Your task to perform on an android device: Go to Wikipedia Image 0: 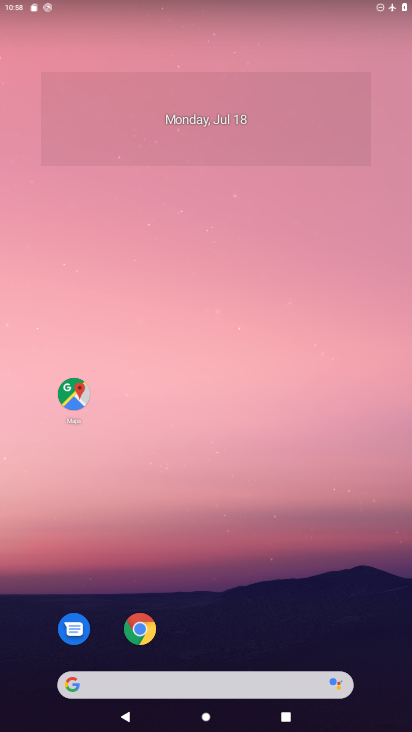
Step 0: drag from (323, 580) to (270, 149)
Your task to perform on an android device: Go to Wikipedia Image 1: 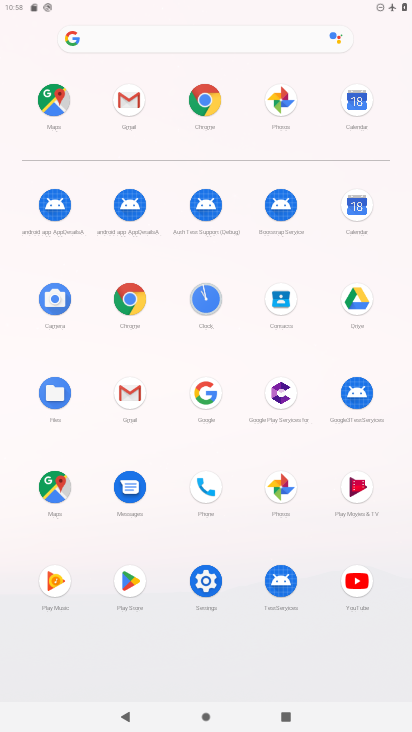
Step 1: click (209, 98)
Your task to perform on an android device: Go to Wikipedia Image 2: 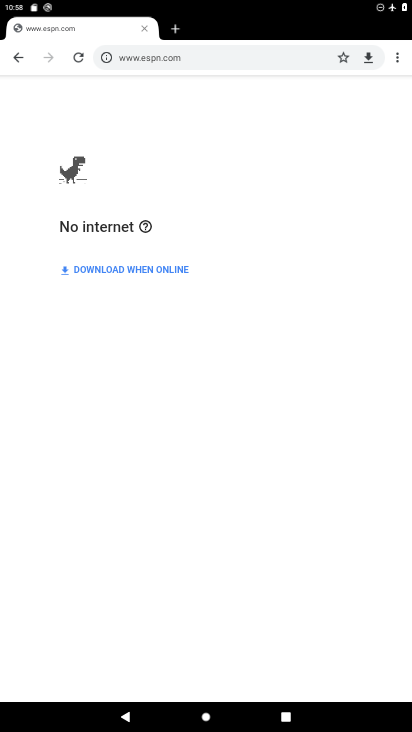
Step 2: click (191, 65)
Your task to perform on an android device: Go to Wikipedia Image 3: 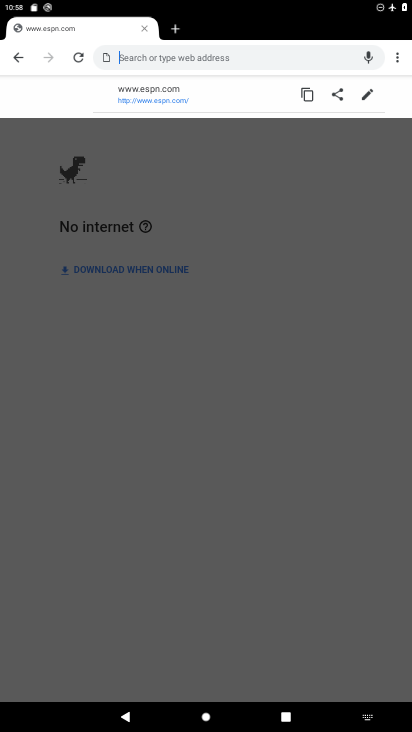
Step 3: type "wikipdciz"
Your task to perform on an android device: Go to Wikipedia Image 4: 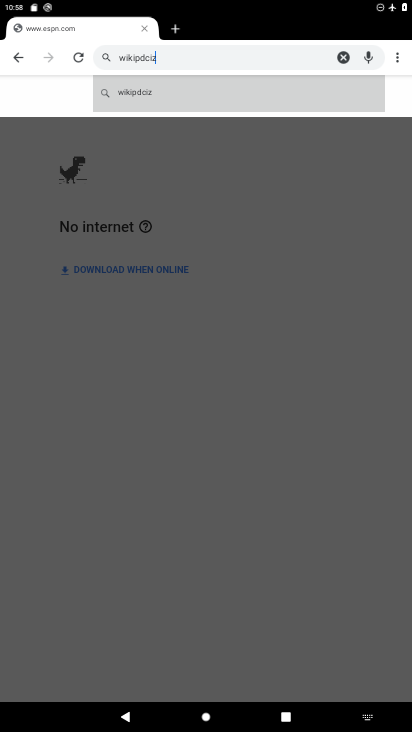
Step 4: click (148, 90)
Your task to perform on an android device: Go to Wikipedia Image 5: 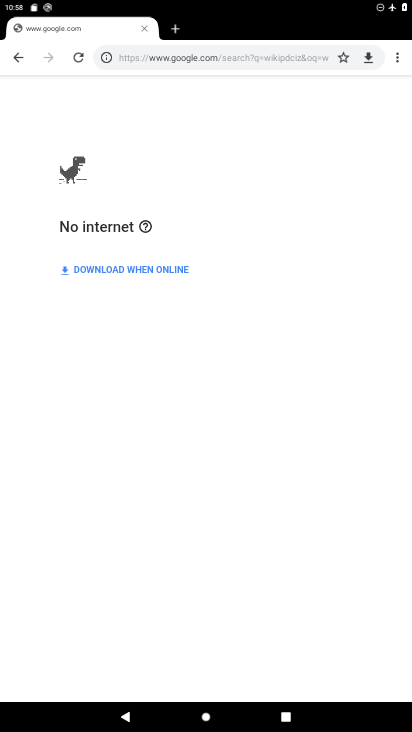
Step 5: task complete